Your task to perform on an android device: Open Google Maps Image 0: 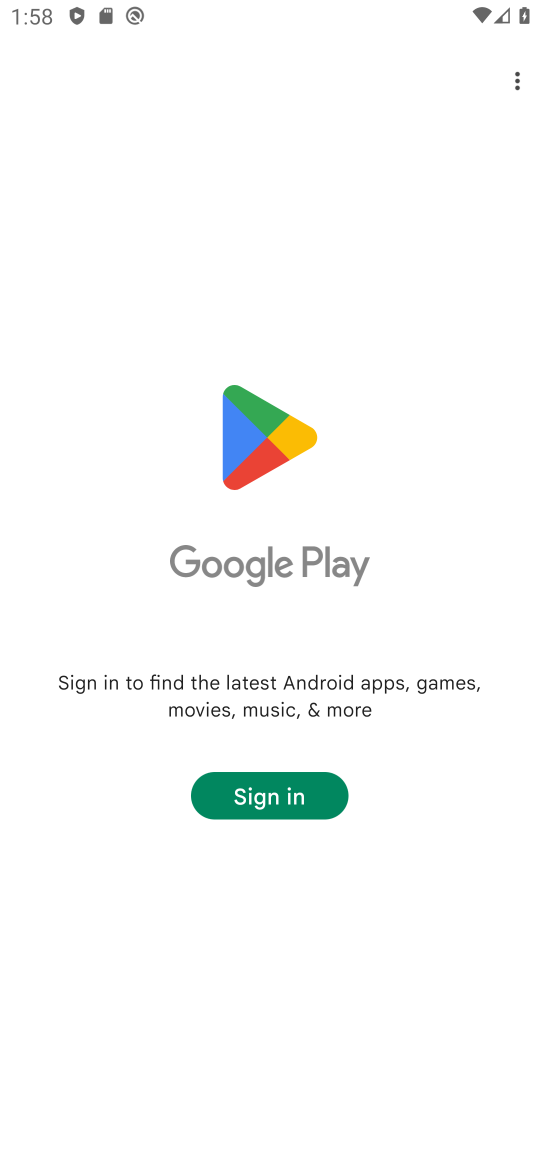
Step 0: press home button
Your task to perform on an android device: Open Google Maps Image 1: 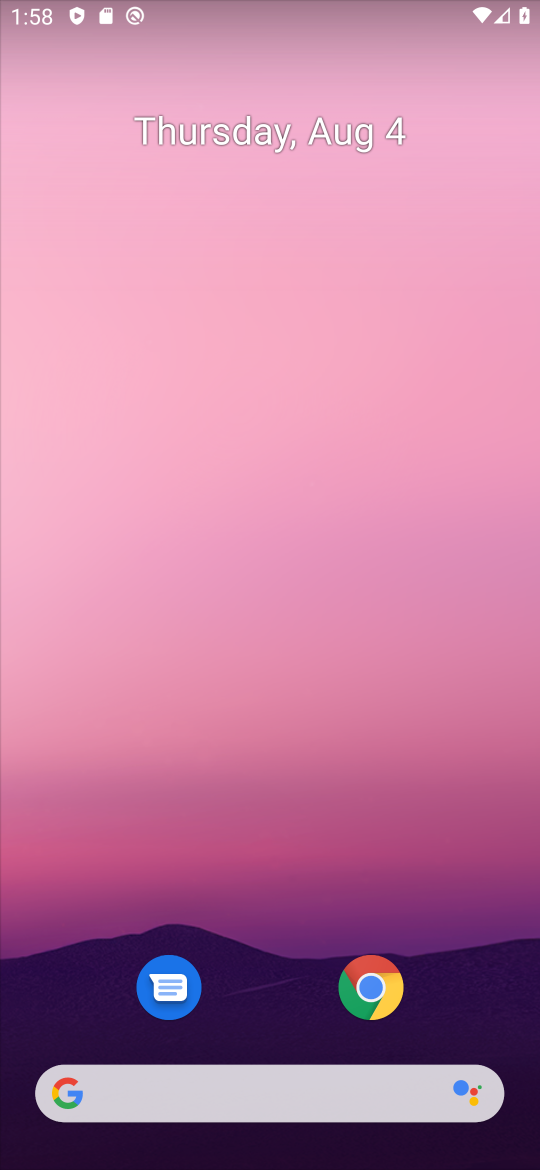
Step 1: drag from (297, 970) to (277, 49)
Your task to perform on an android device: Open Google Maps Image 2: 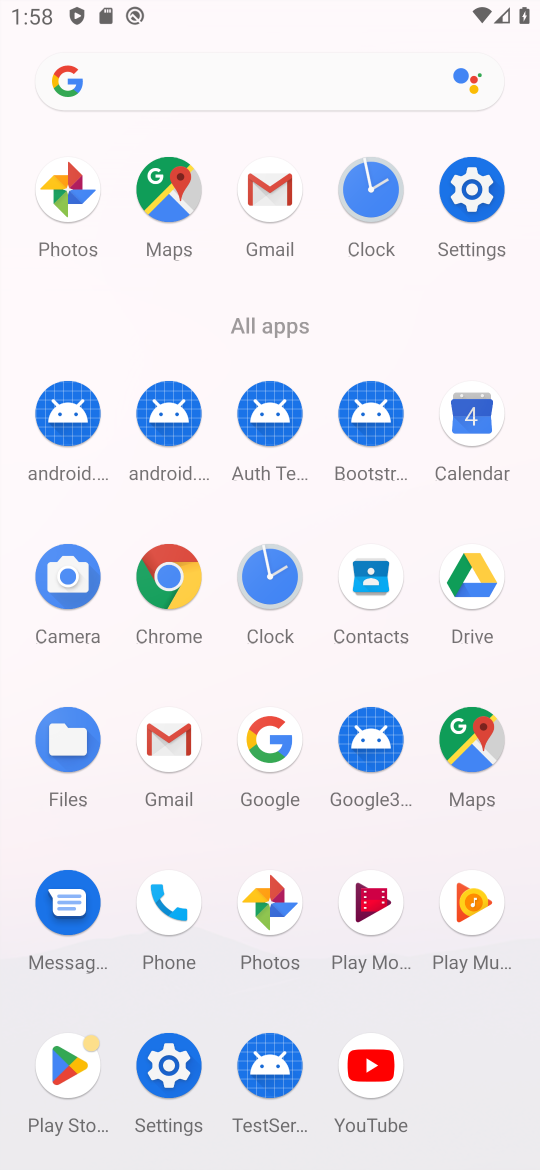
Step 2: click (455, 742)
Your task to perform on an android device: Open Google Maps Image 3: 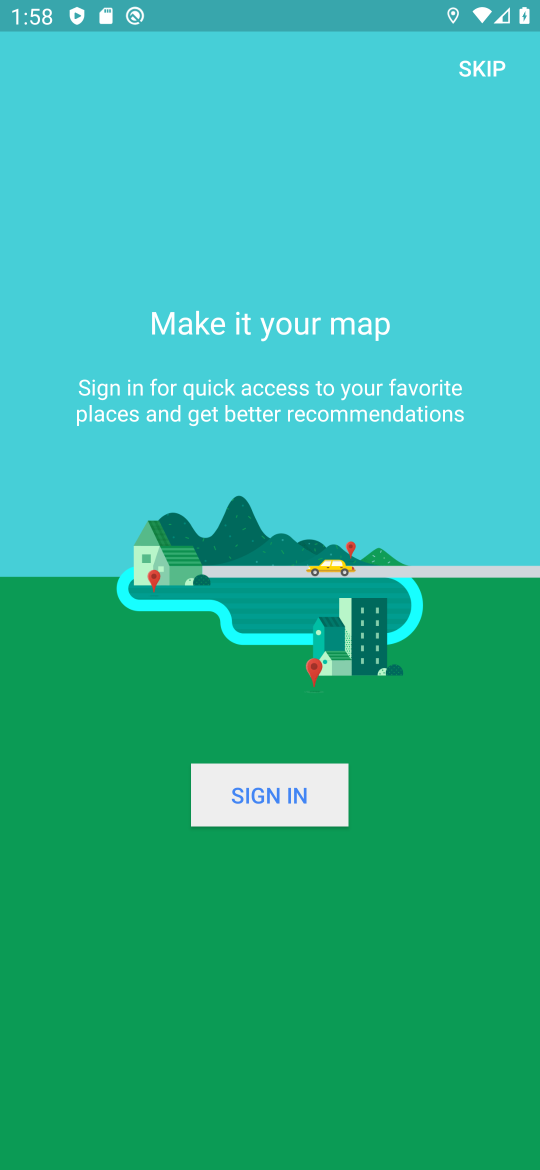
Step 3: click (474, 61)
Your task to perform on an android device: Open Google Maps Image 4: 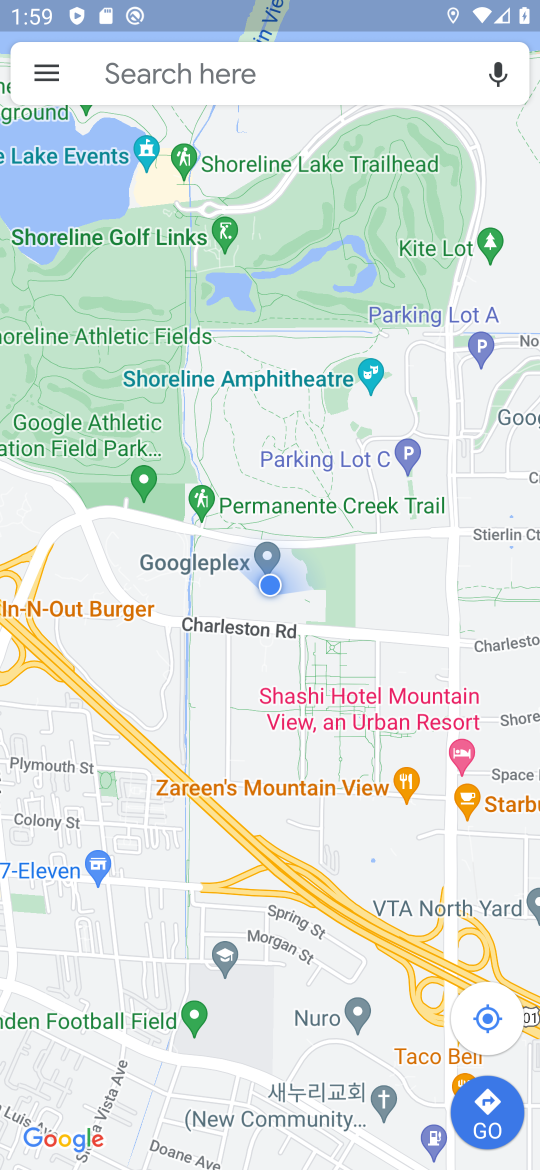
Step 4: task complete